Your task to perform on an android device: View the shopping cart on walmart. Search for asus rog on walmart, select the first entry, add it to the cart, then select checkout. Image 0: 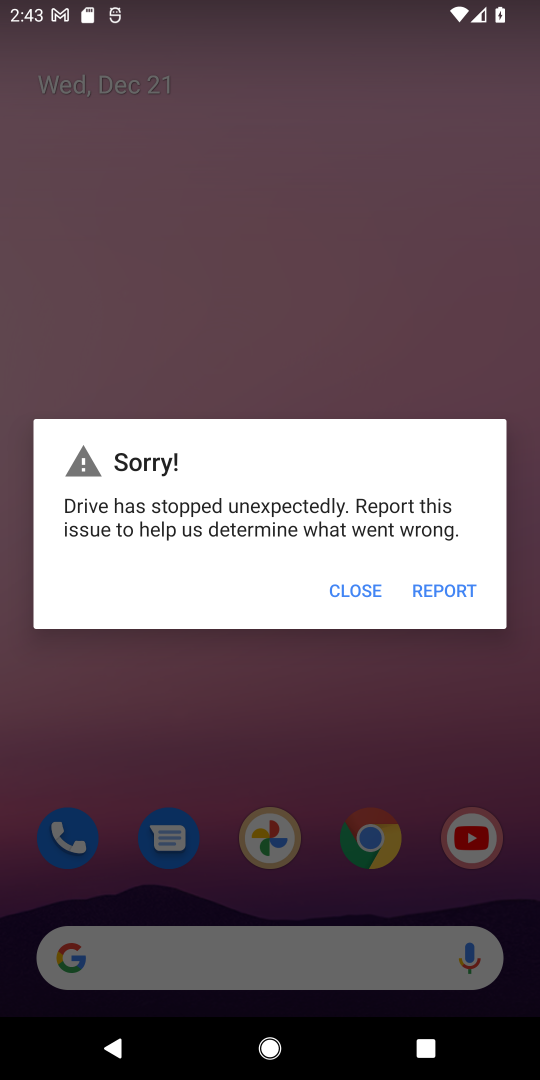
Step 0: click (361, 588)
Your task to perform on an android device: View the shopping cart on walmart. Search for asus rog on walmart, select the first entry, add it to the cart, then select checkout. Image 1: 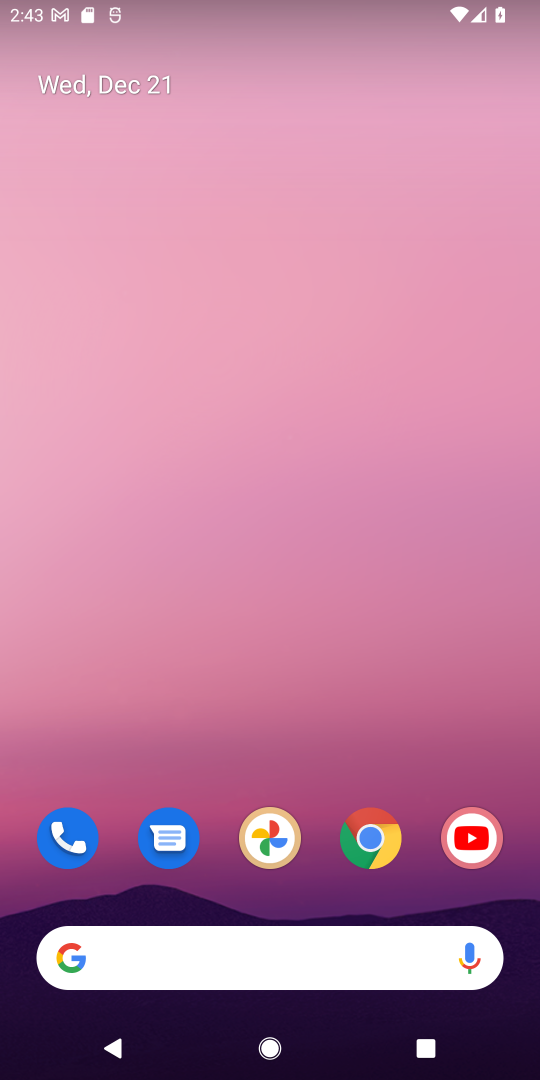
Step 1: click (354, 830)
Your task to perform on an android device: View the shopping cart on walmart. Search for asus rog on walmart, select the first entry, add it to the cart, then select checkout. Image 2: 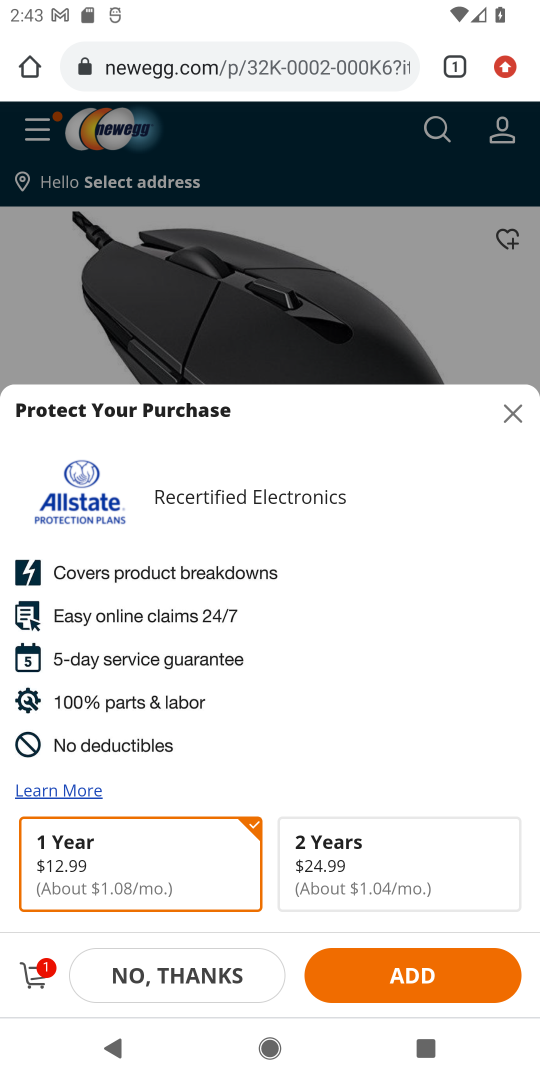
Step 2: click (429, 966)
Your task to perform on an android device: View the shopping cart on walmart. Search for asus rog on walmart, select the first entry, add it to the cart, then select checkout. Image 3: 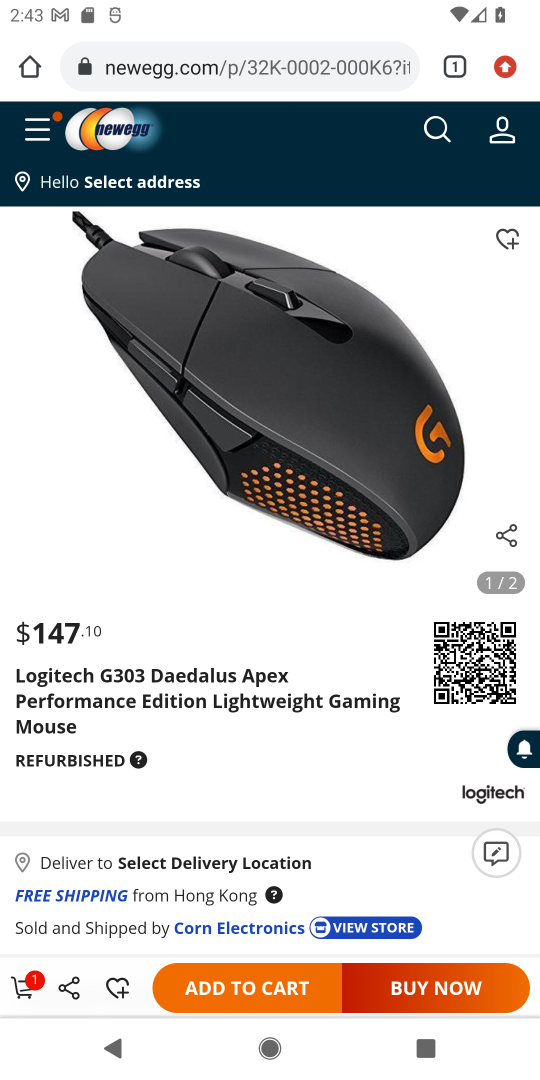
Step 3: click (258, 990)
Your task to perform on an android device: View the shopping cart on walmart. Search for asus rog on walmart, select the first entry, add it to the cart, then select checkout. Image 4: 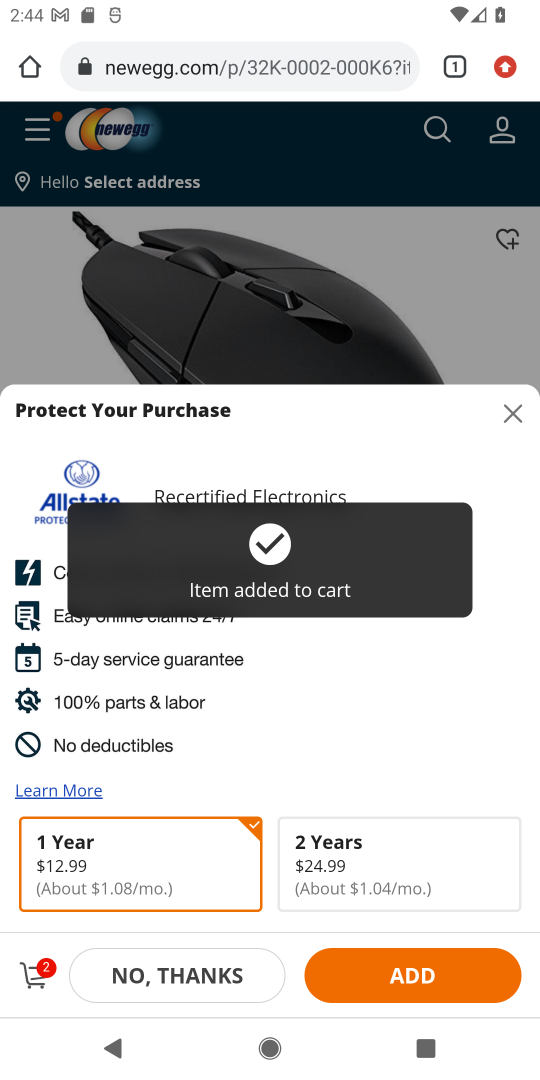
Step 4: task complete